Your task to perform on an android device: set the stopwatch Image 0: 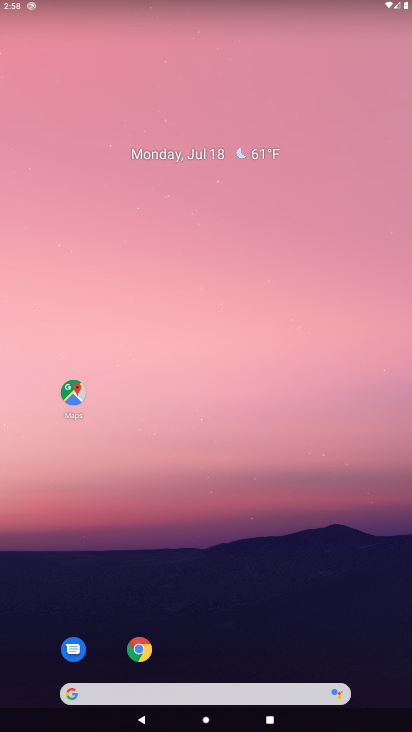
Step 0: drag from (32, 685) to (113, 202)
Your task to perform on an android device: set the stopwatch Image 1: 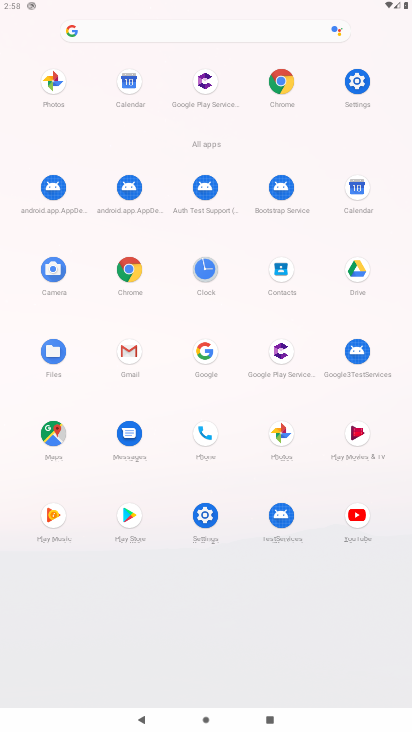
Step 1: click (205, 280)
Your task to perform on an android device: set the stopwatch Image 2: 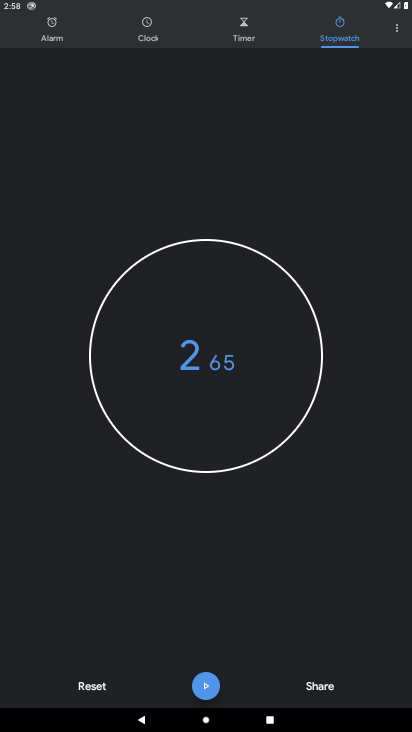
Step 2: click (209, 677)
Your task to perform on an android device: set the stopwatch Image 3: 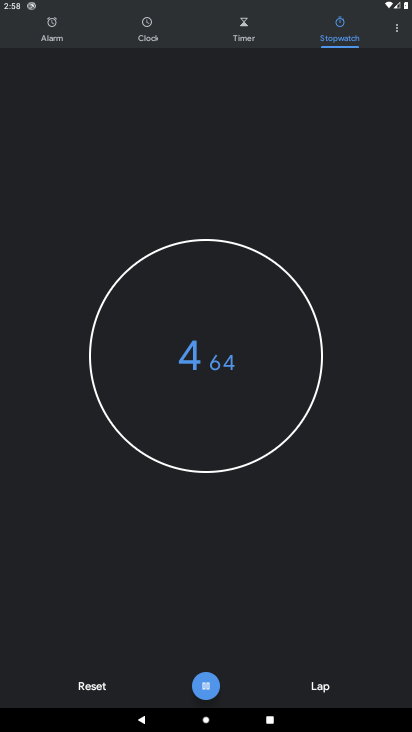
Step 3: click (201, 681)
Your task to perform on an android device: set the stopwatch Image 4: 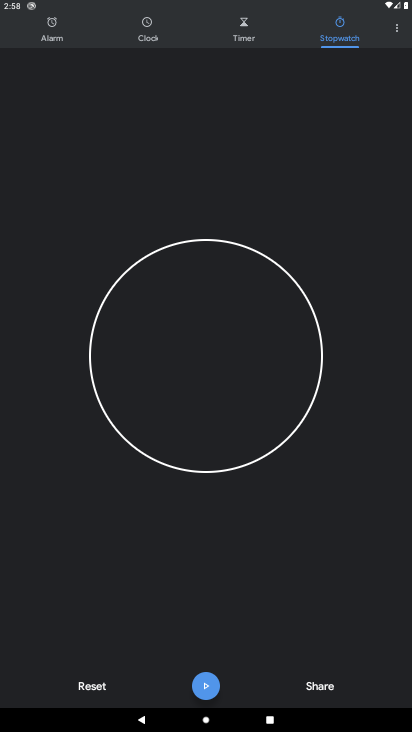
Step 4: task complete